Your task to perform on an android device: What's the weather going to be this weekend? Image 0: 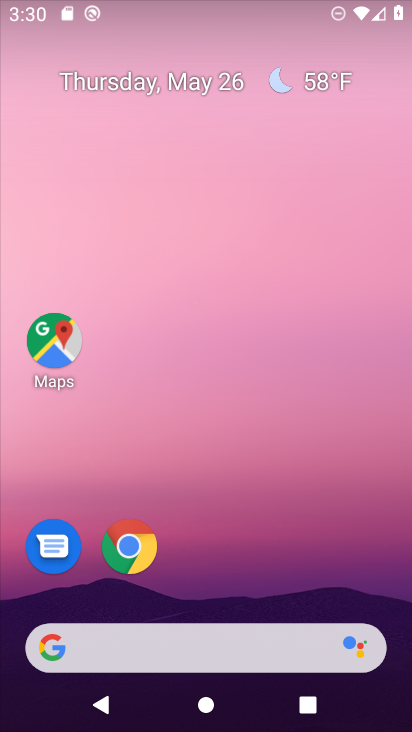
Step 0: press home button
Your task to perform on an android device: What's the weather going to be this weekend? Image 1: 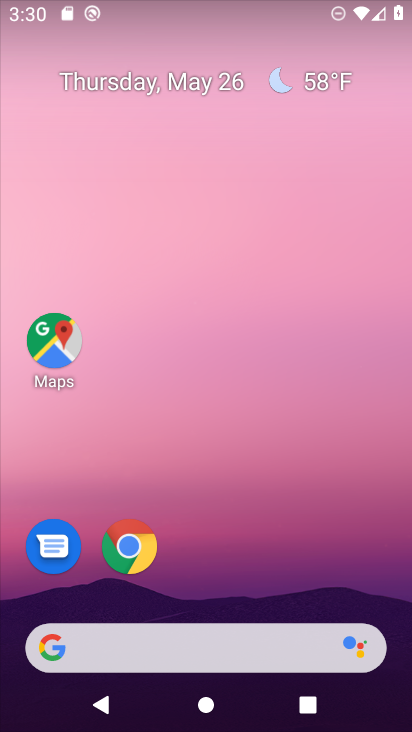
Step 1: press home button
Your task to perform on an android device: What's the weather going to be this weekend? Image 2: 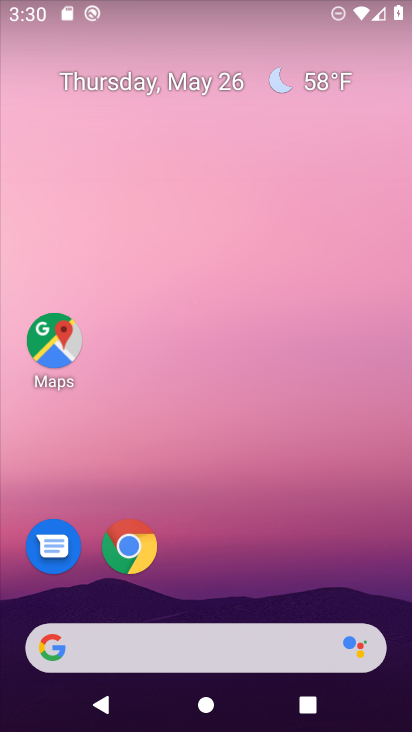
Step 2: click (329, 77)
Your task to perform on an android device: What's the weather going to be this weekend? Image 3: 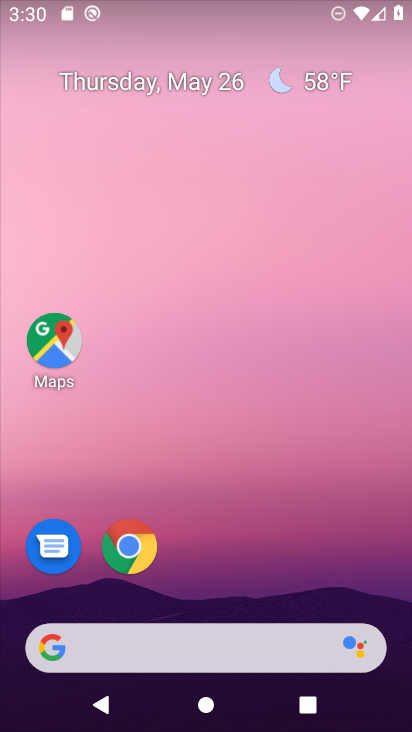
Step 3: click (312, 79)
Your task to perform on an android device: What's the weather going to be this weekend? Image 4: 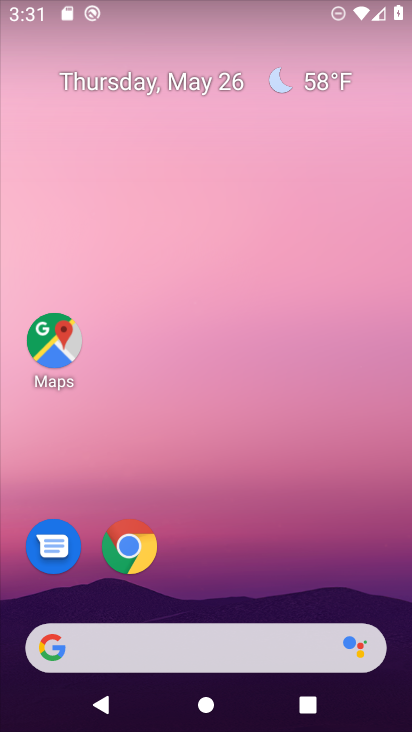
Step 4: click (329, 80)
Your task to perform on an android device: What's the weather going to be this weekend? Image 5: 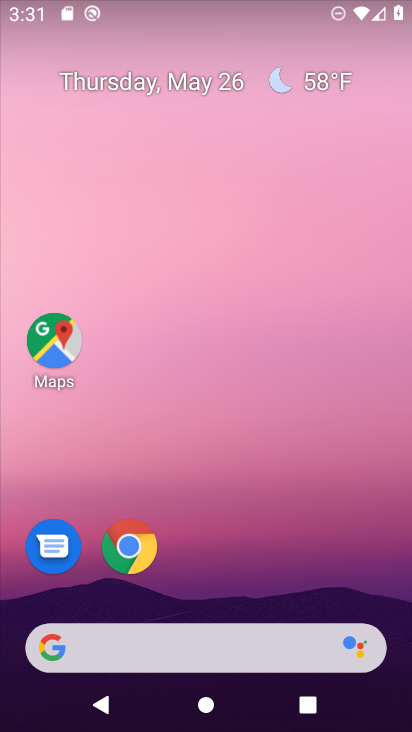
Step 5: click (317, 79)
Your task to perform on an android device: What's the weather going to be this weekend? Image 6: 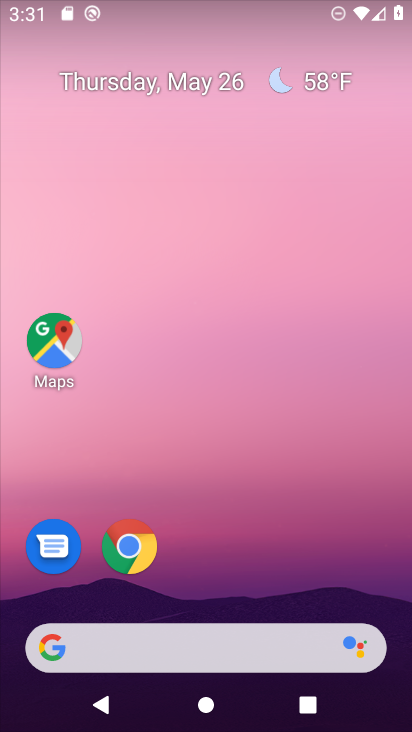
Step 6: click (304, 76)
Your task to perform on an android device: What's the weather going to be this weekend? Image 7: 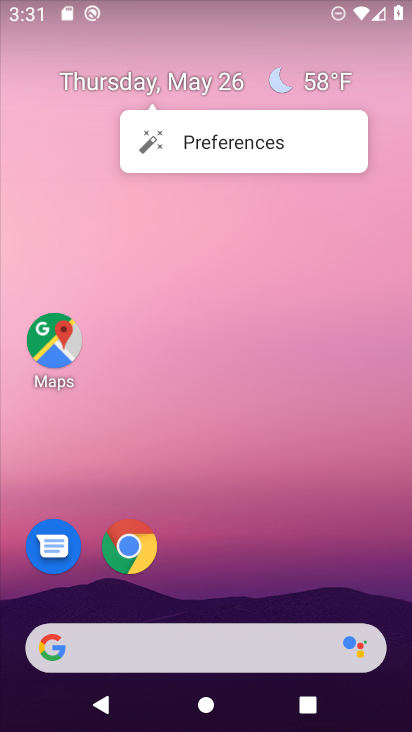
Step 7: click (321, 76)
Your task to perform on an android device: What's the weather going to be this weekend? Image 8: 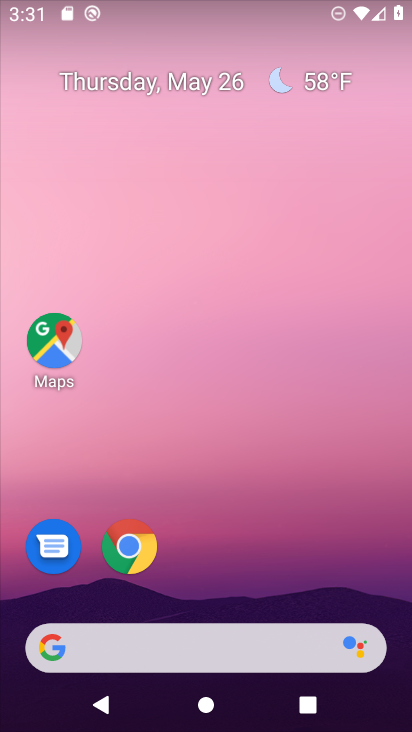
Step 8: click (279, 78)
Your task to perform on an android device: What's the weather going to be this weekend? Image 9: 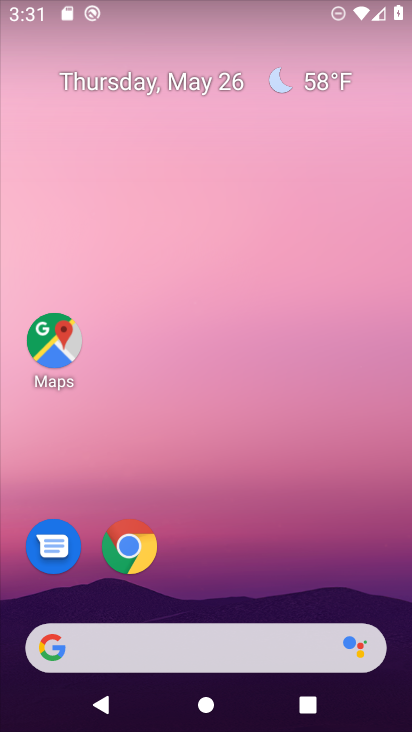
Step 9: drag from (10, 230) to (400, 225)
Your task to perform on an android device: What's the weather going to be this weekend? Image 10: 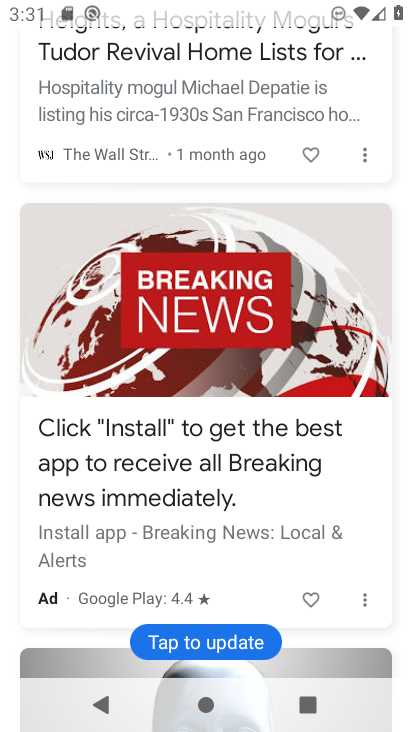
Step 10: drag from (168, 129) to (273, 714)
Your task to perform on an android device: What's the weather going to be this weekend? Image 11: 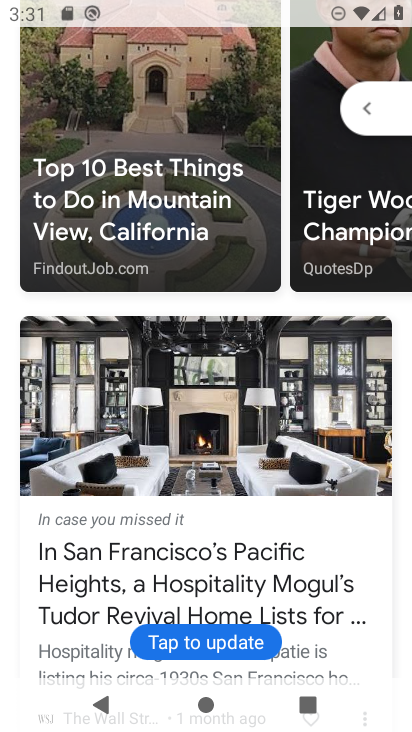
Step 11: drag from (236, 125) to (260, 699)
Your task to perform on an android device: What's the weather going to be this weekend? Image 12: 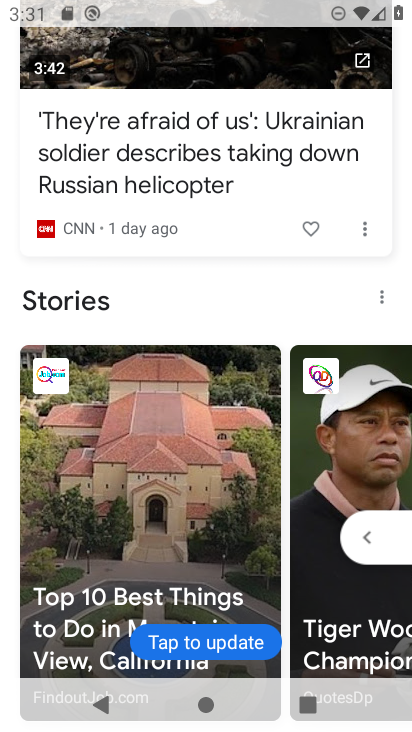
Step 12: drag from (231, 98) to (218, 704)
Your task to perform on an android device: What's the weather going to be this weekend? Image 13: 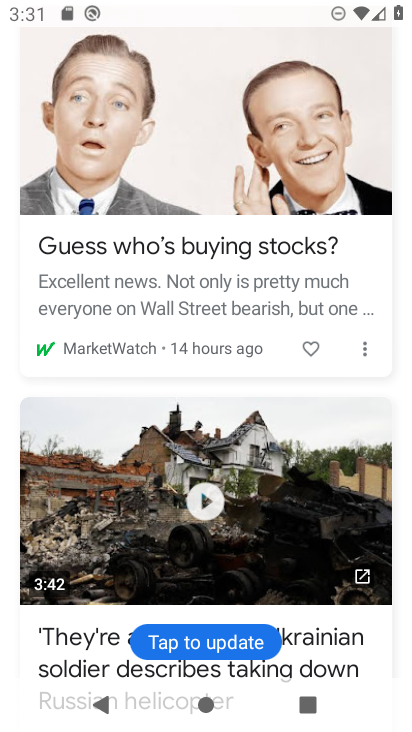
Step 13: drag from (217, 73) to (230, 662)
Your task to perform on an android device: What's the weather going to be this weekend? Image 14: 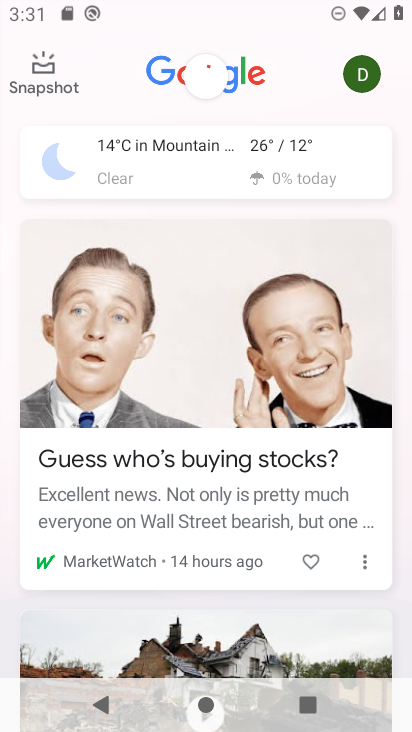
Step 14: click (275, 150)
Your task to perform on an android device: What's the weather going to be this weekend? Image 15: 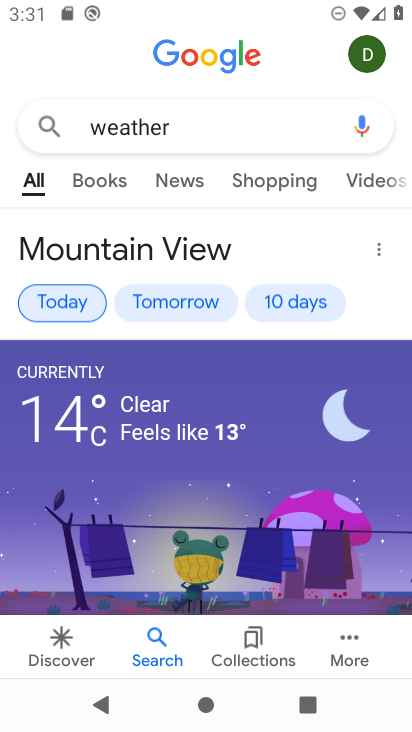
Step 15: click (289, 301)
Your task to perform on an android device: What's the weather going to be this weekend? Image 16: 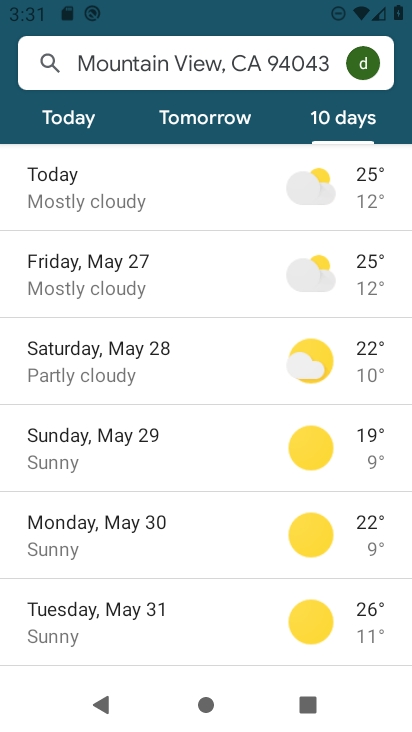
Step 16: task complete